Your task to perform on an android device: Set the phone to "Do not disturb". Image 0: 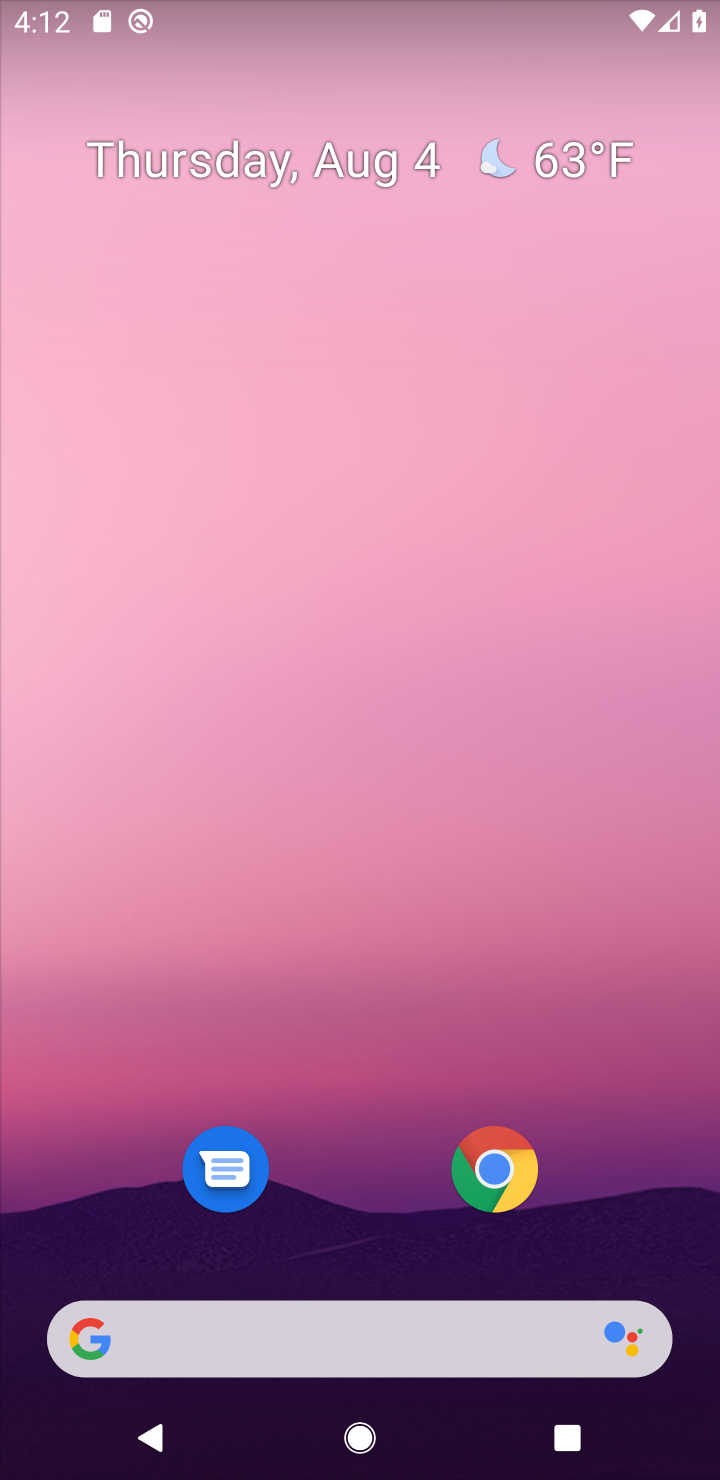
Step 0: drag from (392, 1265) to (262, 24)
Your task to perform on an android device: Set the phone to "Do not disturb". Image 1: 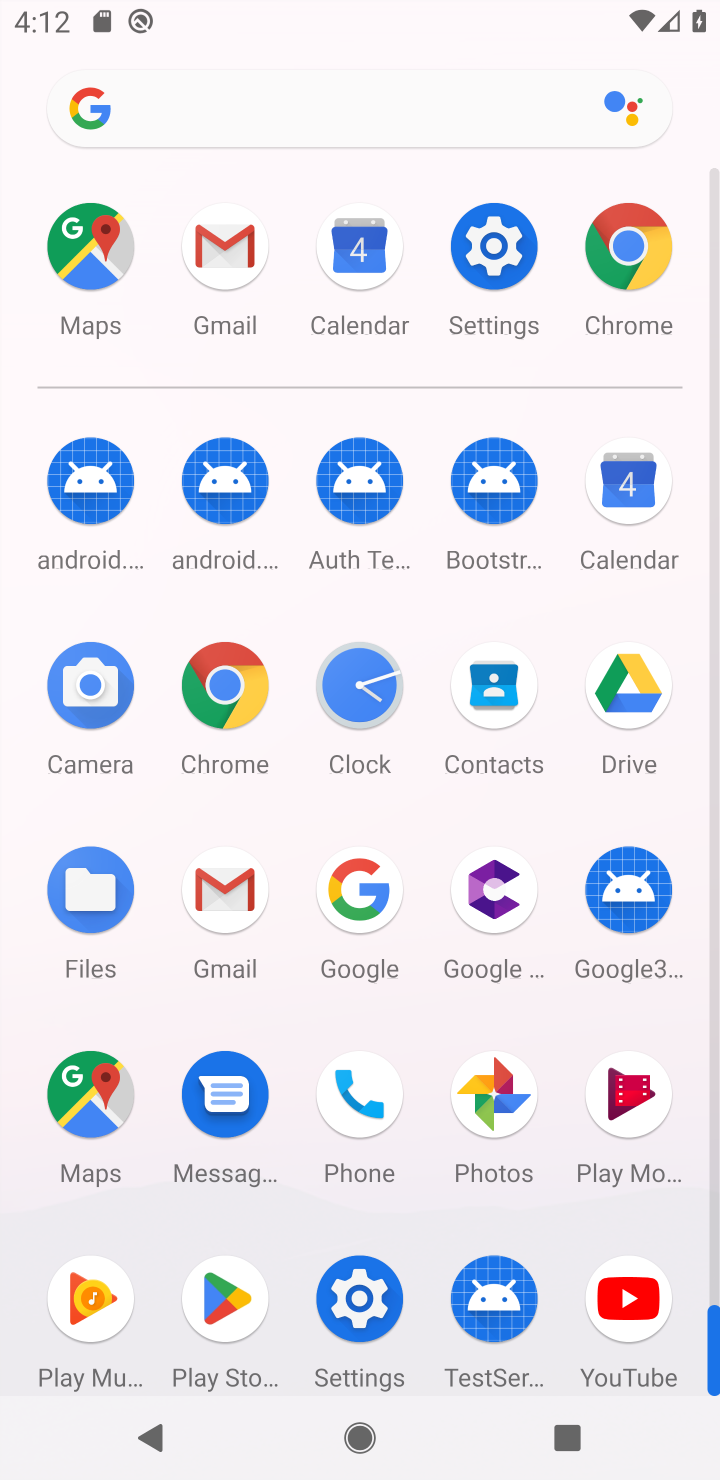
Step 1: click (502, 286)
Your task to perform on an android device: Set the phone to "Do not disturb". Image 2: 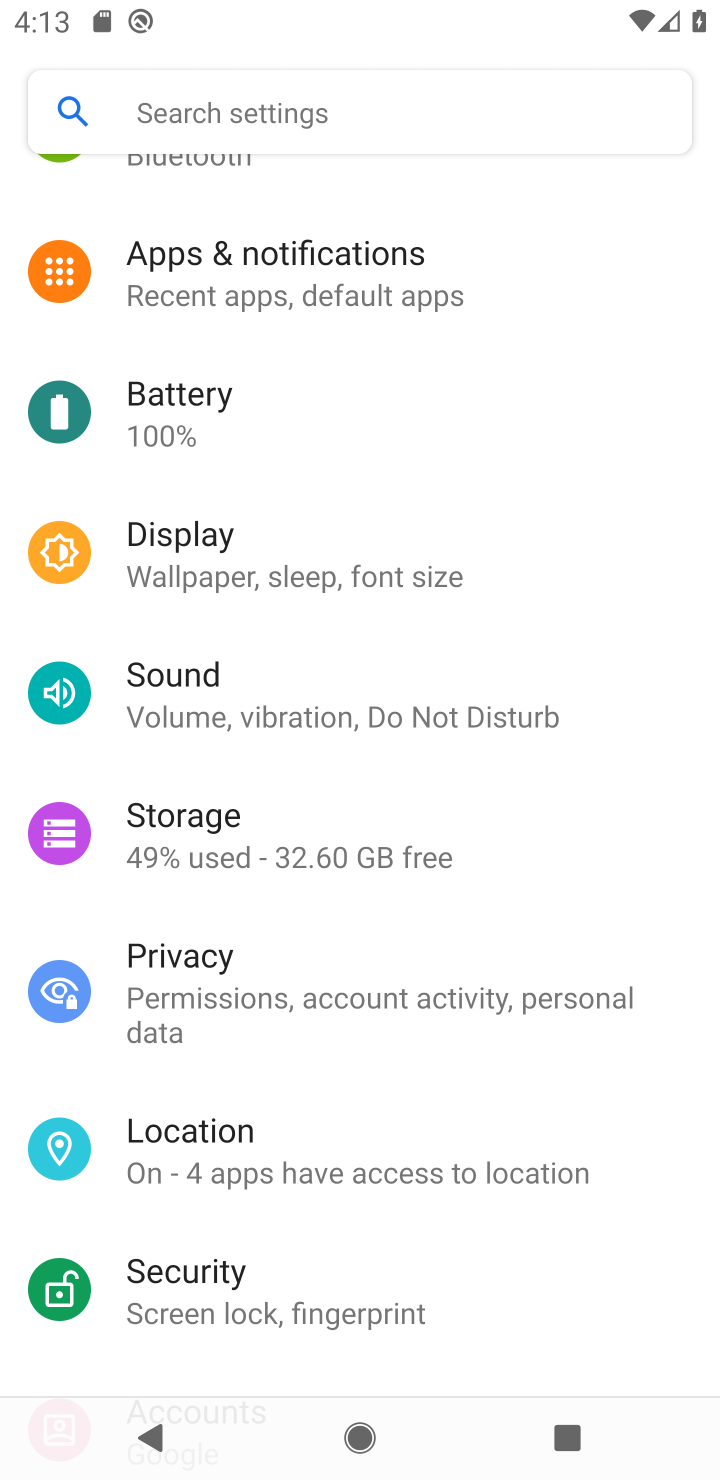
Step 2: click (280, 687)
Your task to perform on an android device: Set the phone to "Do not disturb". Image 3: 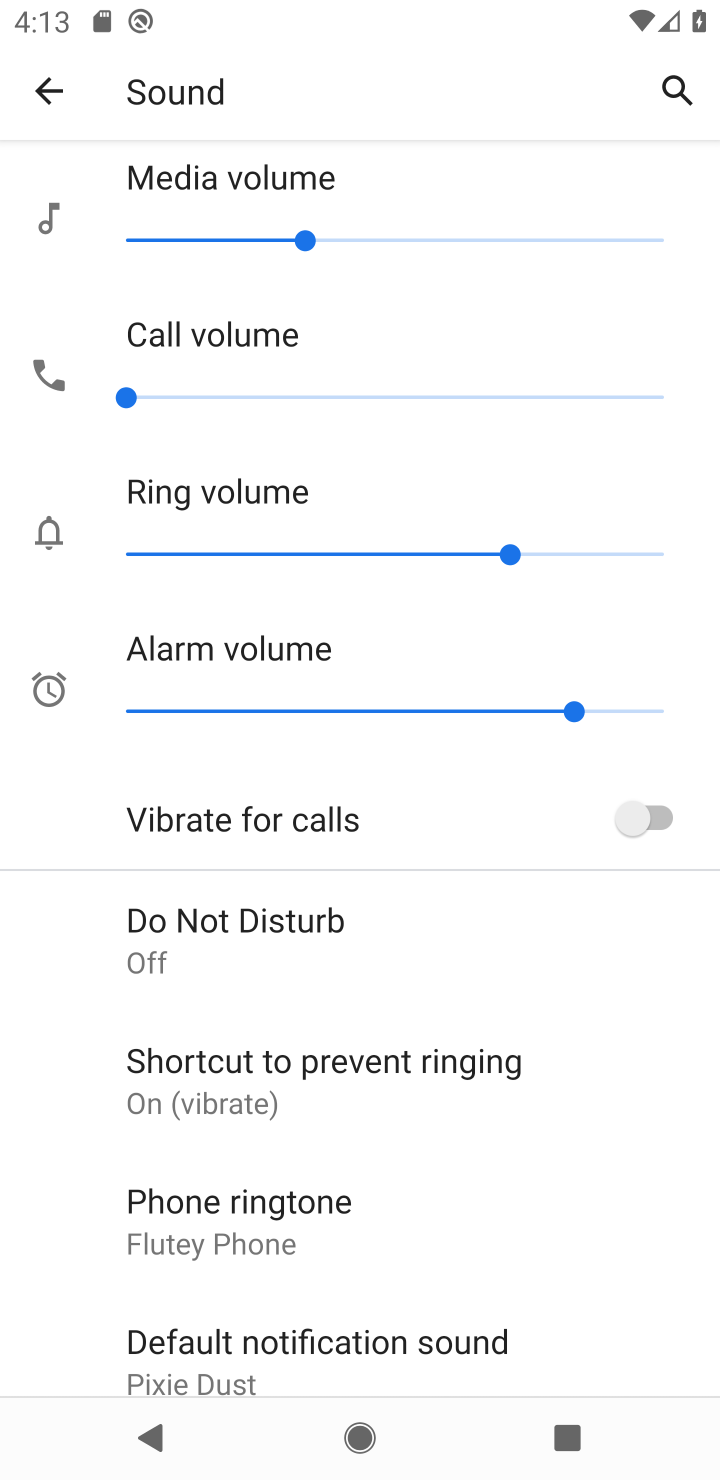
Step 3: click (273, 926)
Your task to perform on an android device: Set the phone to "Do not disturb". Image 4: 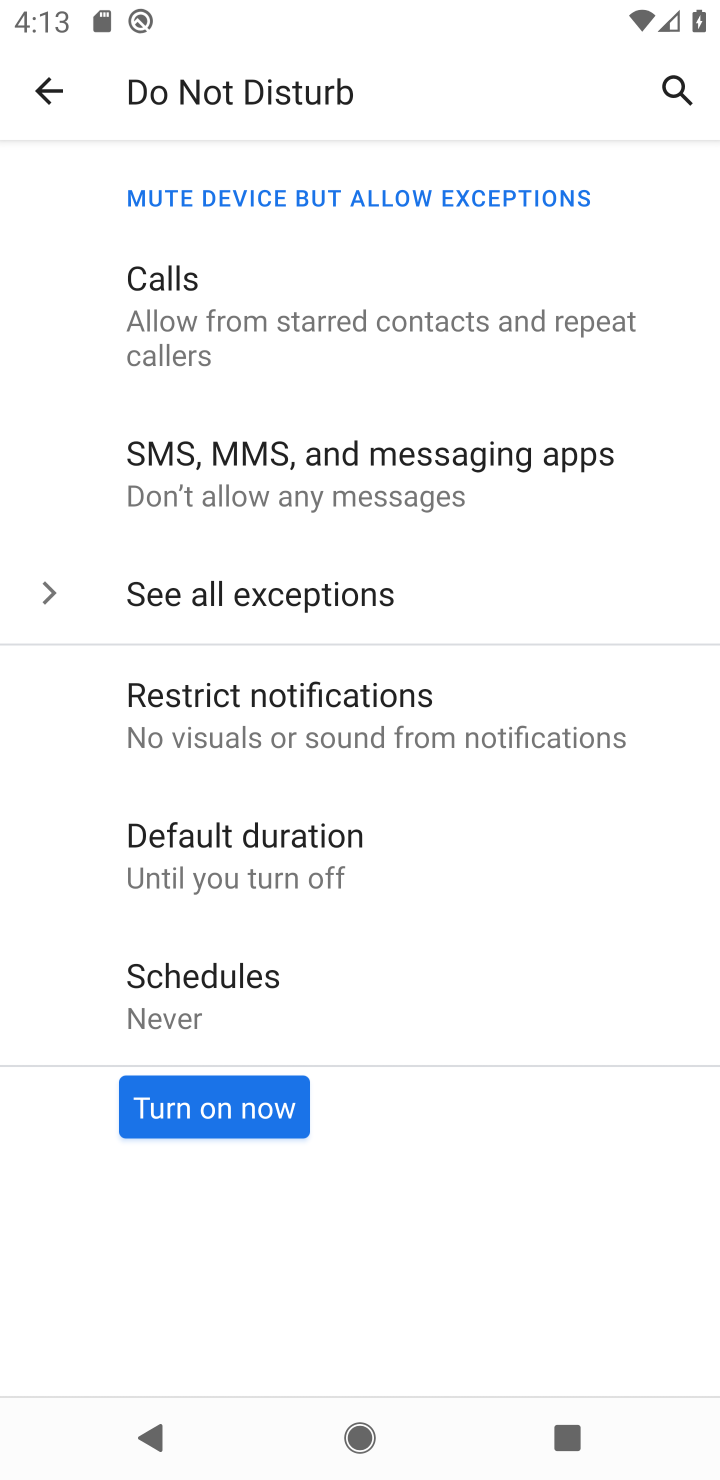
Step 4: click (227, 1114)
Your task to perform on an android device: Set the phone to "Do not disturb". Image 5: 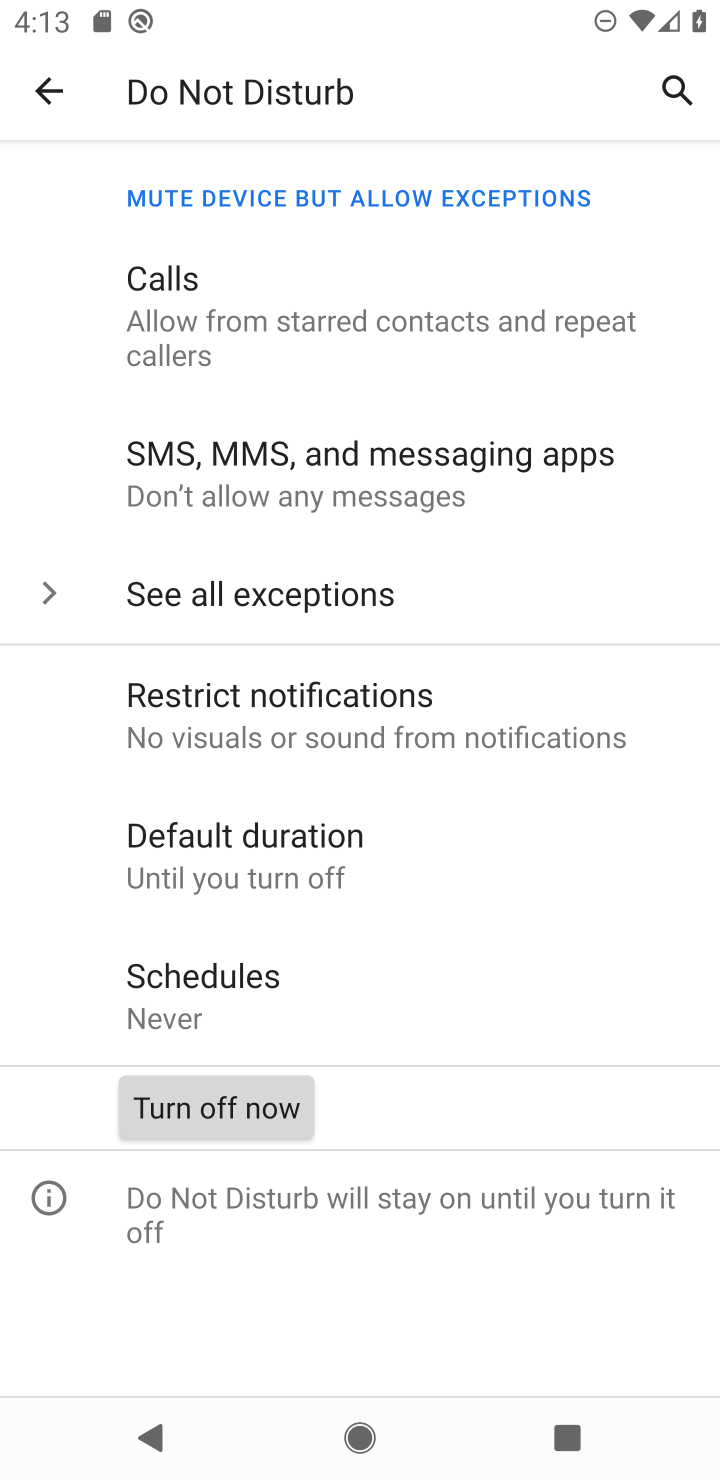
Step 5: task complete